Your task to perform on an android device: open app "DuckDuckGo Privacy Browser" Image 0: 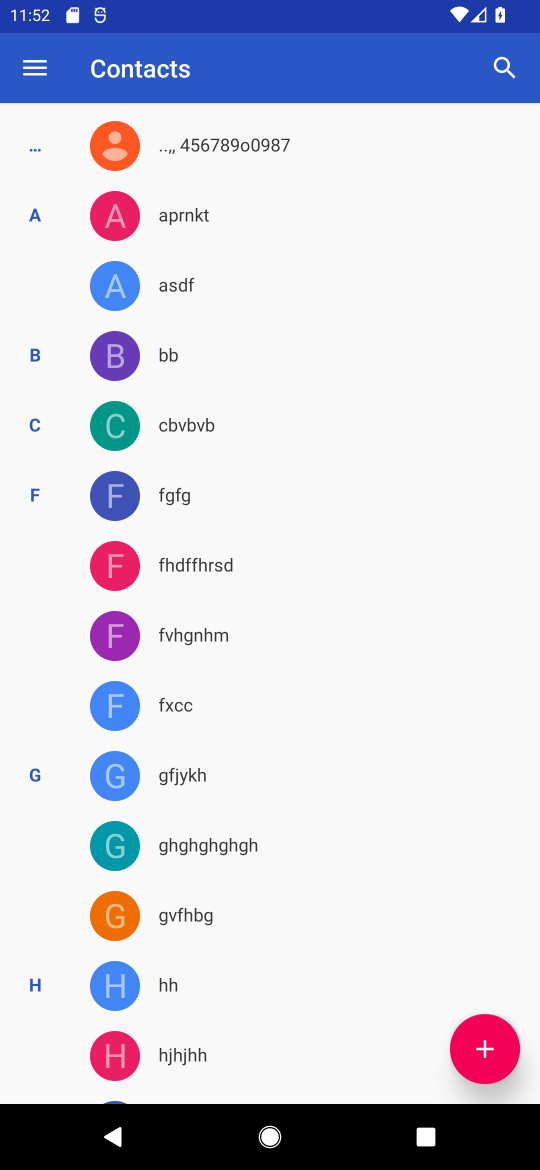
Step 0: press home button
Your task to perform on an android device: open app "DuckDuckGo Privacy Browser" Image 1: 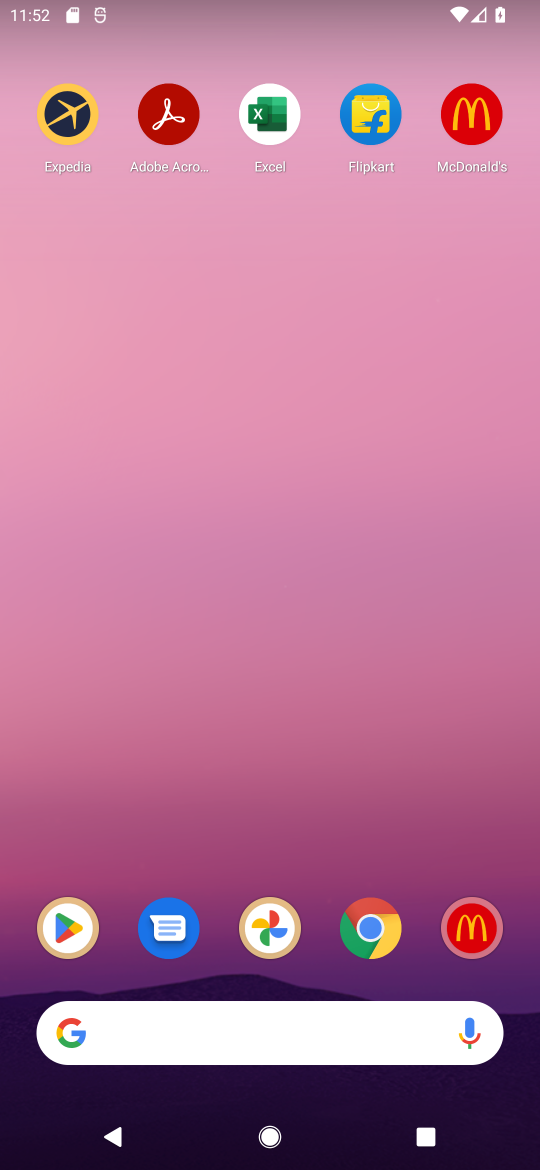
Step 1: drag from (390, 706) to (402, 122)
Your task to perform on an android device: open app "DuckDuckGo Privacy Browser" Image 2: 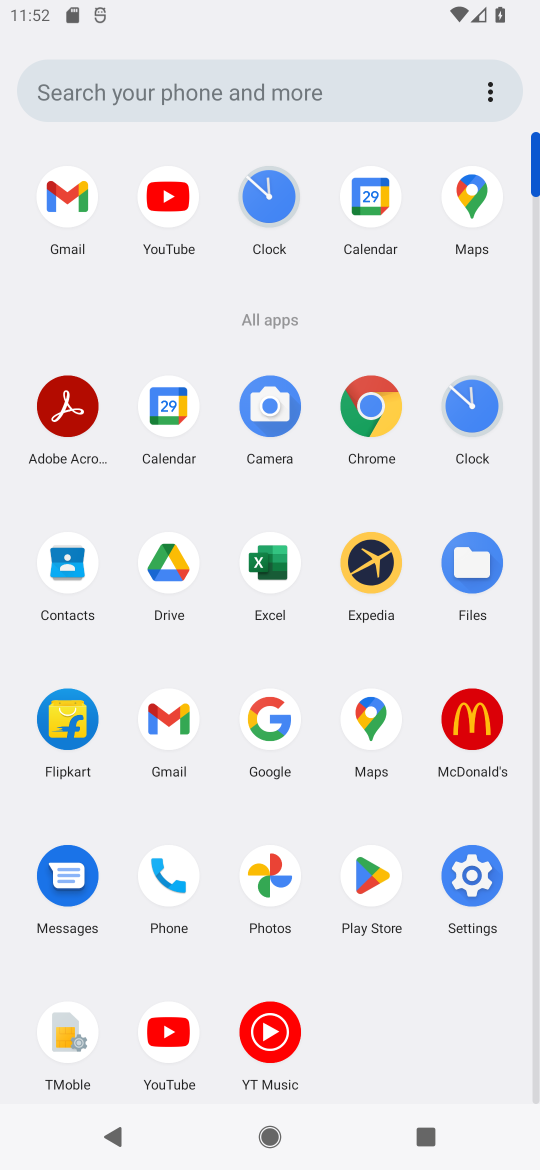
Step 2: click (373, 877)
Your task to perform on an android device: open app "DuckDuckGo Privacy Browser" Image 3: 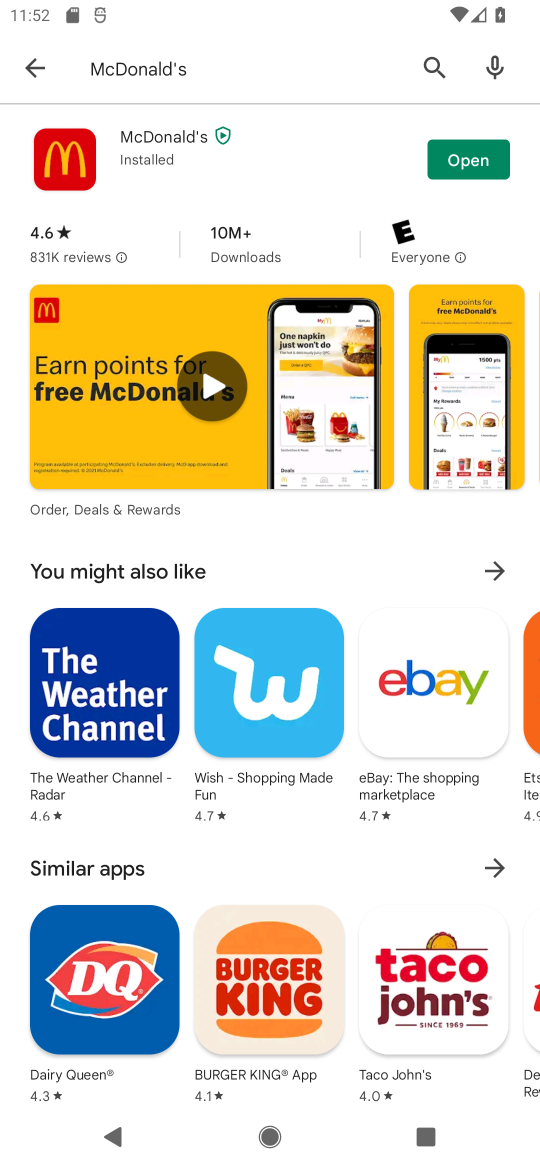
Step 3: click (248, 65)
Your task to perform on an android device: open app "DuckDuckGo Privacy Browser" Image 4: 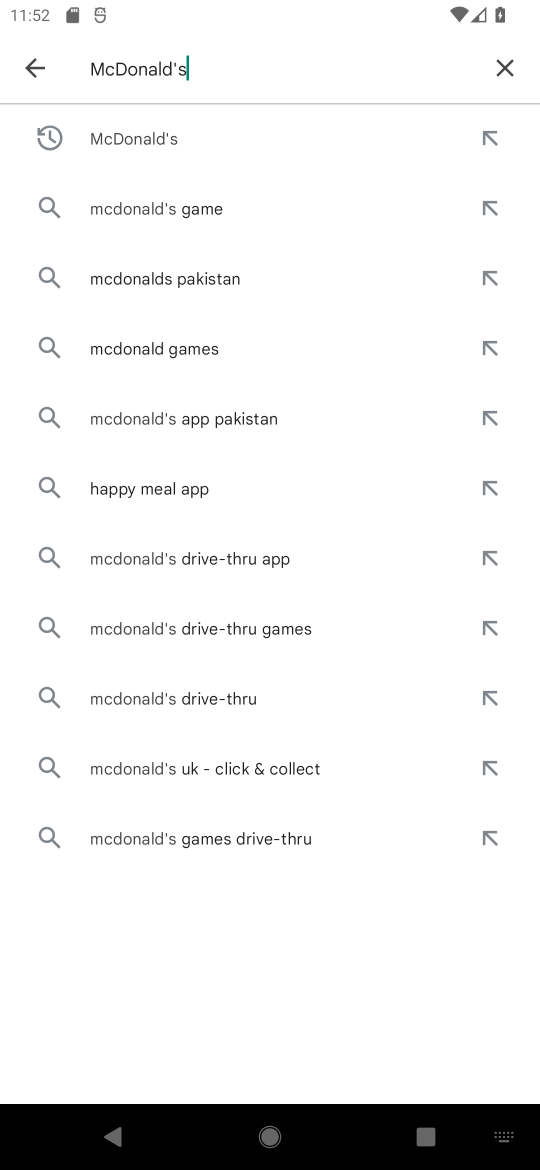
Step 4: click (512, 60)
Your task to perform on an android device: open app "DuckDuckGo Privacy Browser" Image 5: 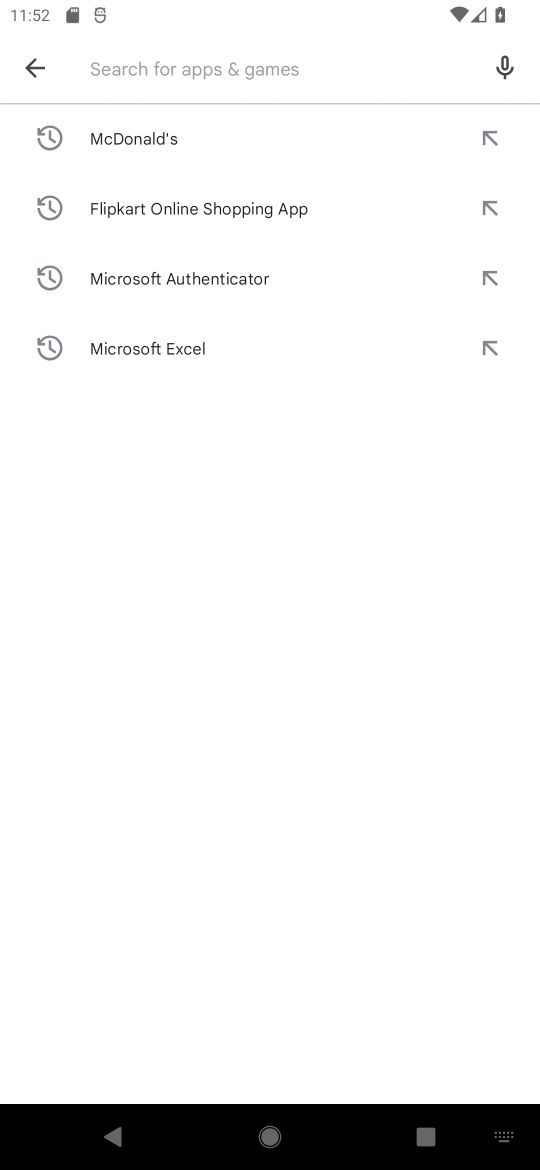
Step 5: type "DuckDuckGo Privacy Browser"
Your task to perform on an android device: open app "DuckDuckGo Privacy Browser" Image 6: 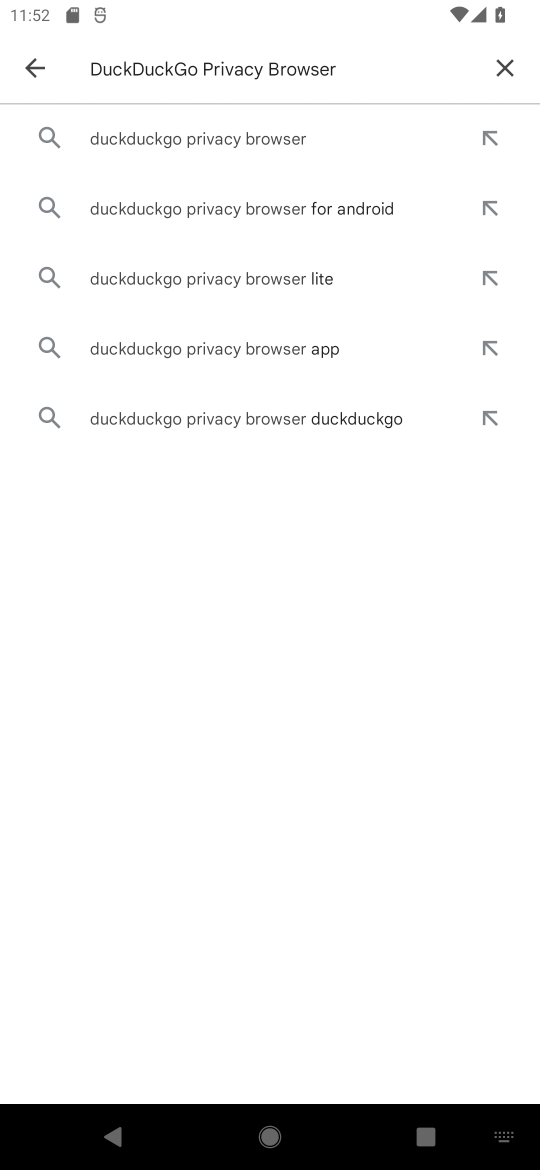
Step 6: press enter
Your task to perform on an android device: open app "DuckDuckGo Privacy Browser" Image 7: 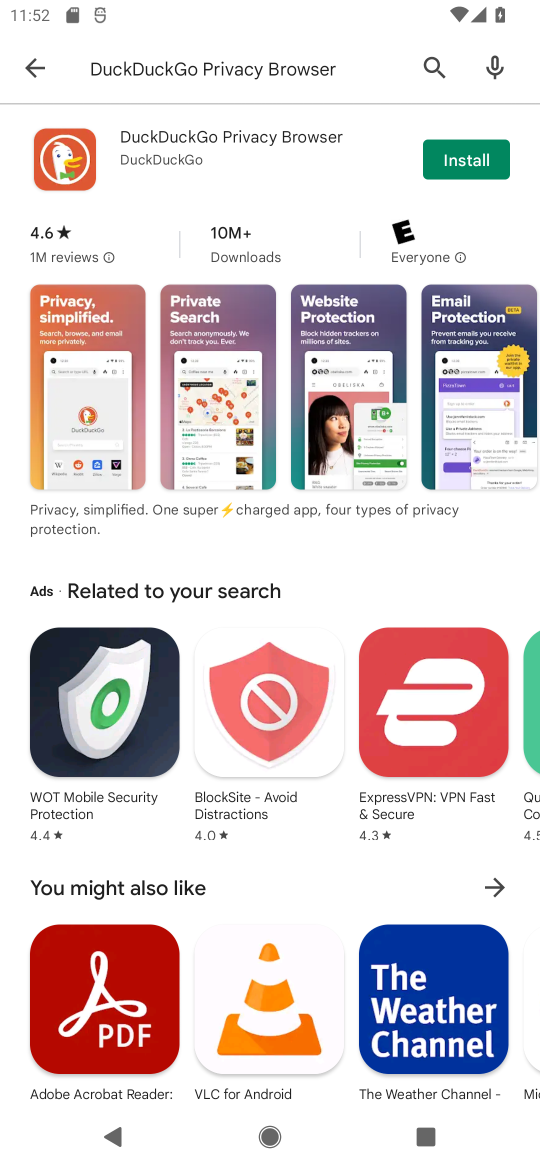
Step 7: task complete